Your task to perform on an android device: Show me some nice wallpapers for my laptop Image 0: 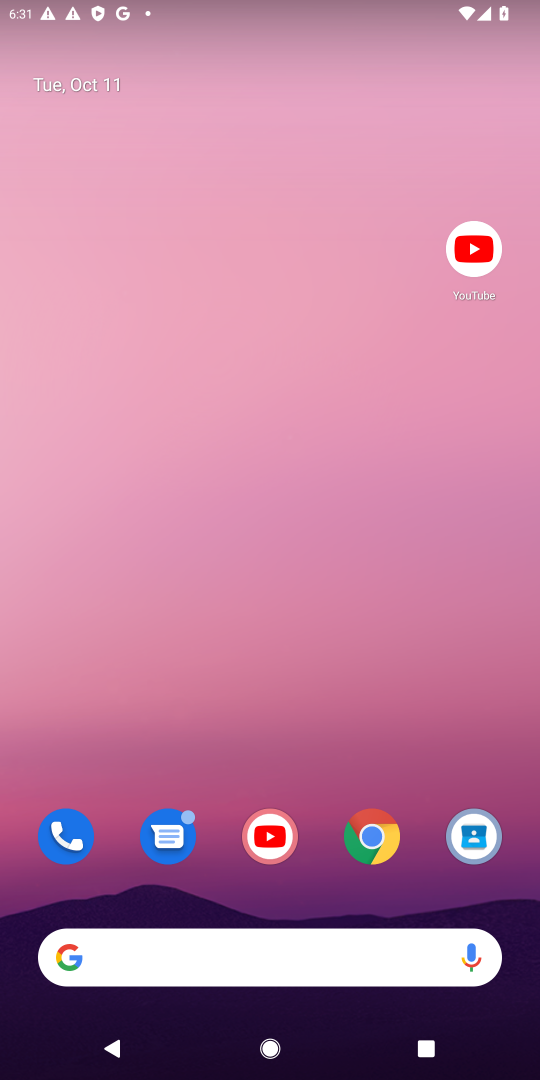
Step 0: click (377, 837)
Your task to perform on an android device: Show me some nice wallpapers for my laptop Image 1: 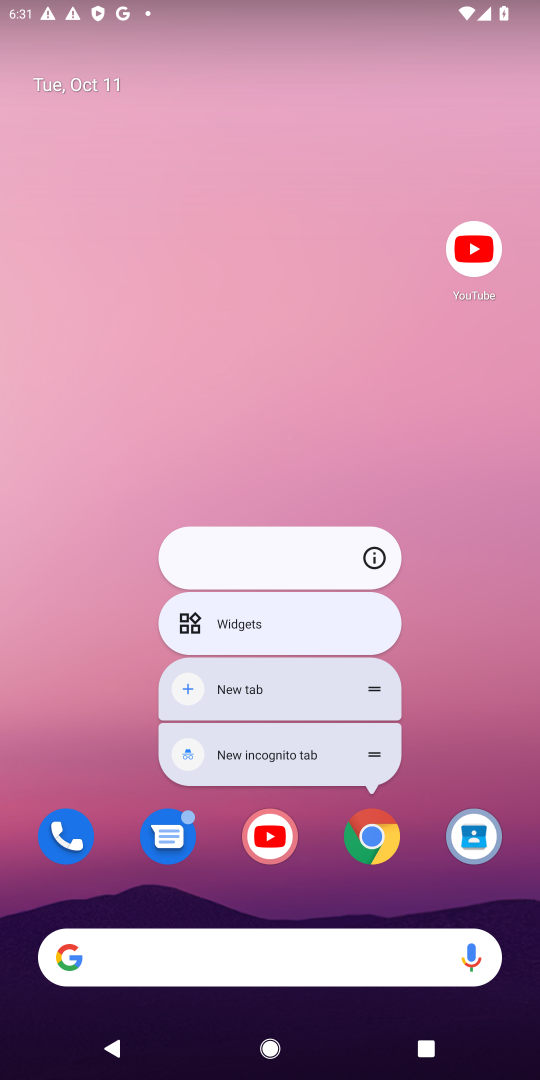
Step 1: click (369, 833)
Your task to perform on an android device: Show me some nice wallpapers for my laptop Image 2: 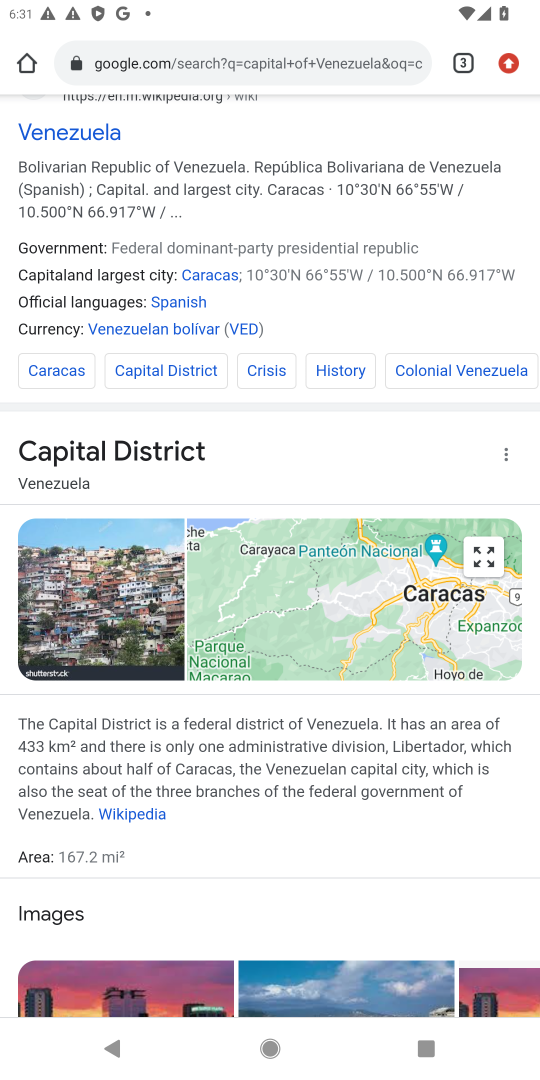
Step 2: click (392, 55)
Your task to perform on an android device: Show me some nice wallpapers for my laptop Image 3: 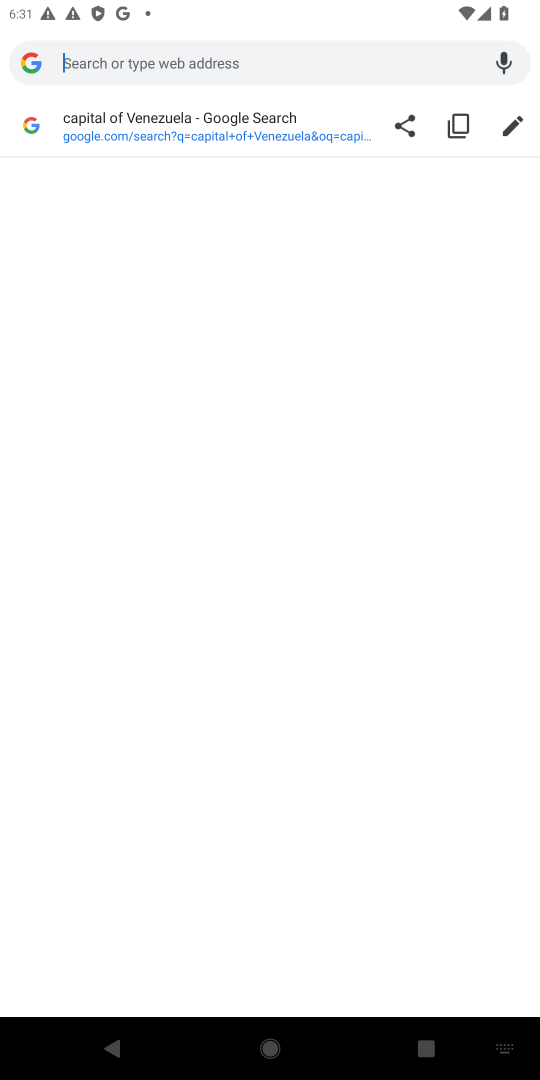
Step 3: type " nice wallpapers for my laptop"
Your task to perform on an android device: Show me some nice wallpapers for my laptop Image 4: 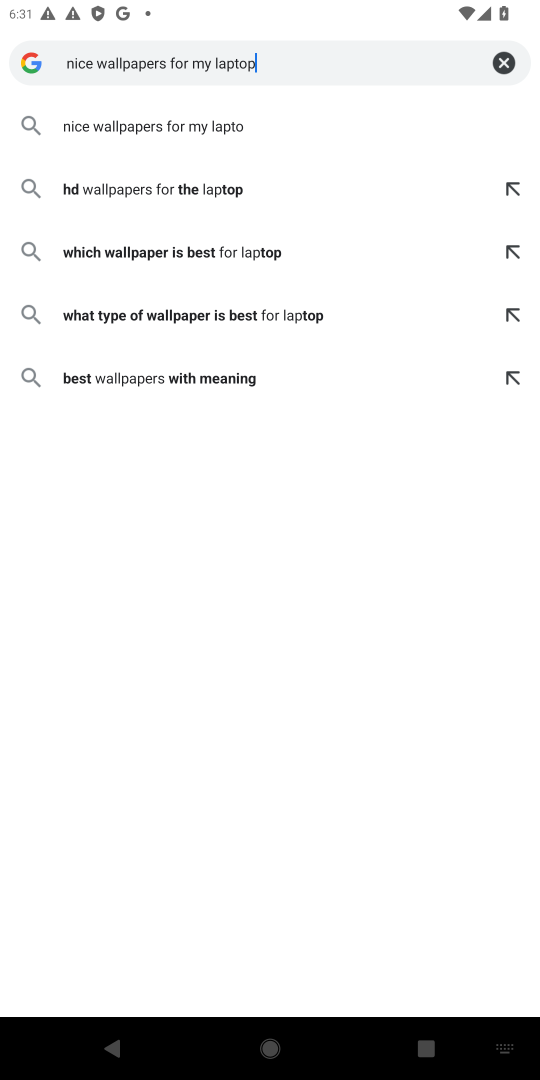
Step 4: press enter
Your task to perform on an android device: Show me some nice wallpapers for my laptop Image 5: 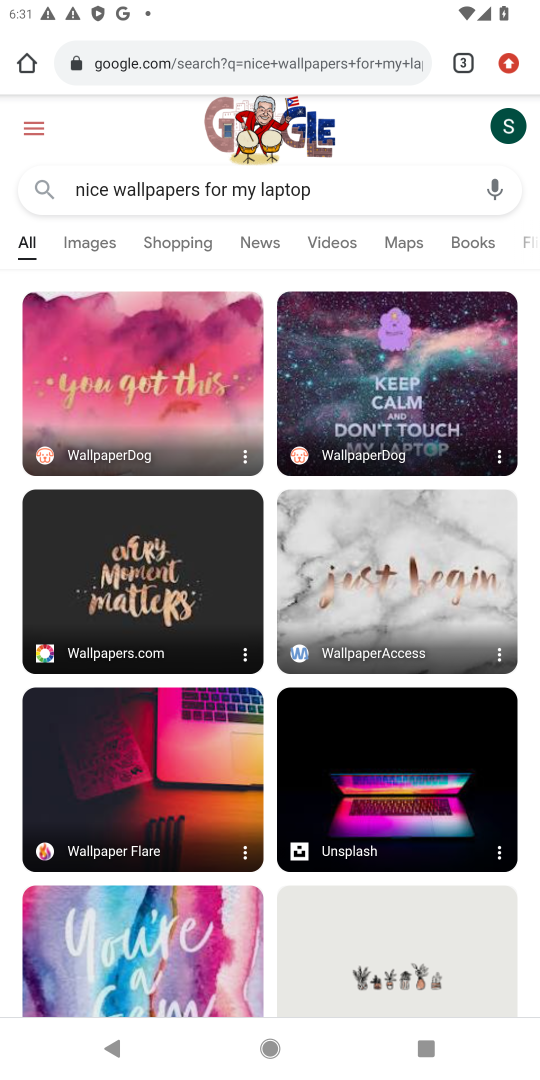
Step 5: drag from (273, 894) to (472, 389)
Your task to perform on an android device: Show me some nice wallpapers for my laptop Image 6: 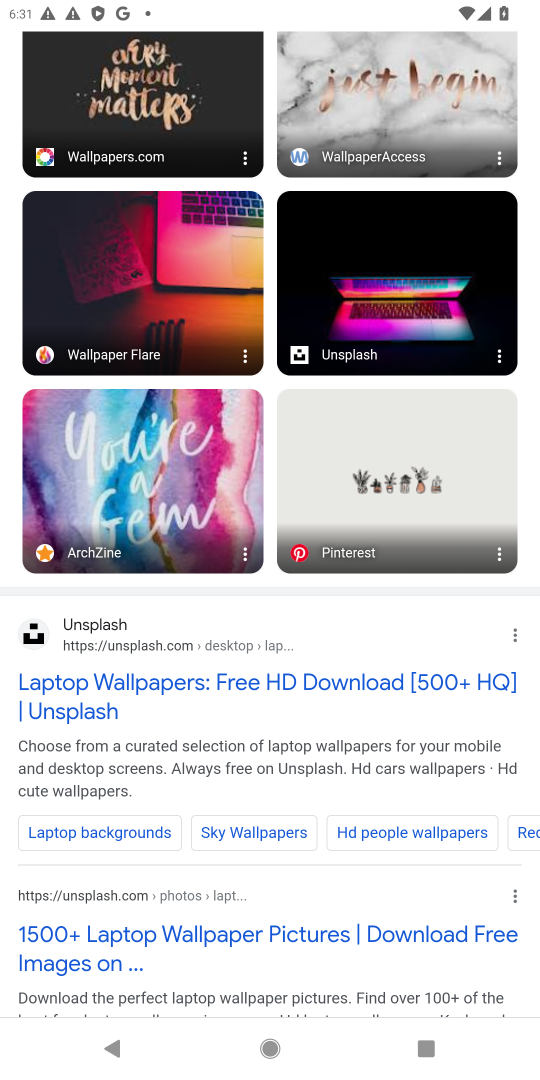
Step 6: click (161, 683)
Your task to perform on an android device: Show me some nice wallpapers for my laptop Image 7: 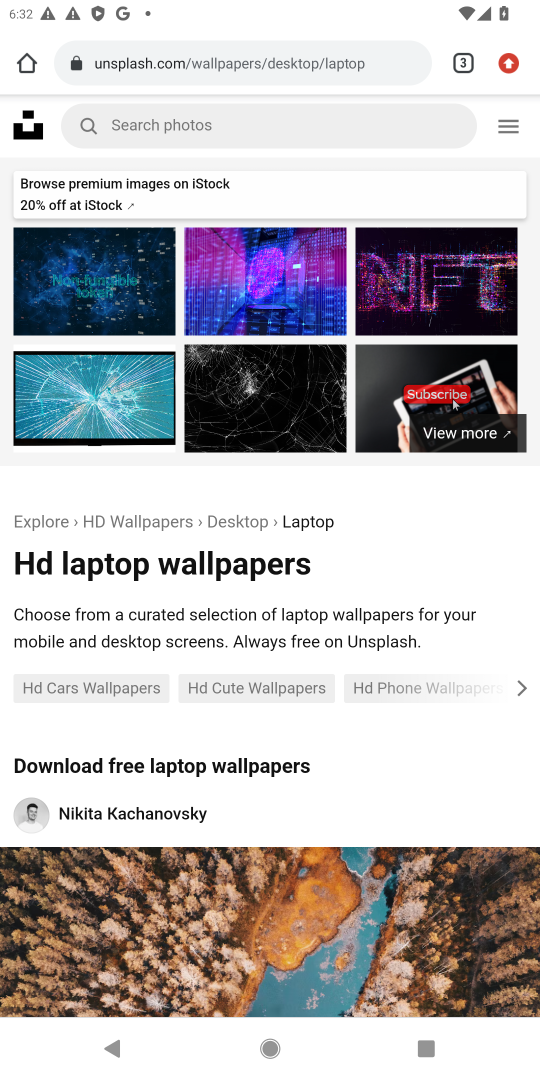
Step 7: task complete